Your task to perform on an android device: check out phone information Image 0: 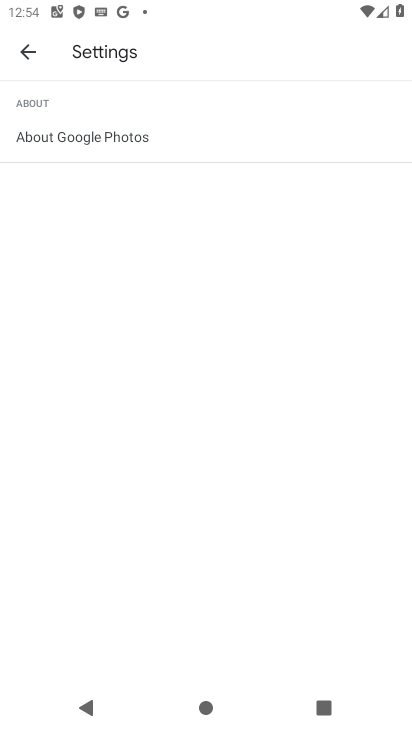
Step 0: press home button
Your task to perform on an android device: check out phone information Image 1: 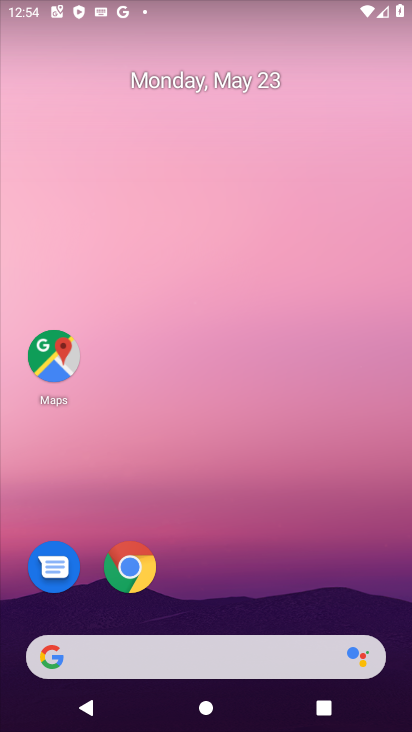
Step 1: drag from (220, 617) to (221, 162)
Your task to perform on an android device: check out phone information Image 2: 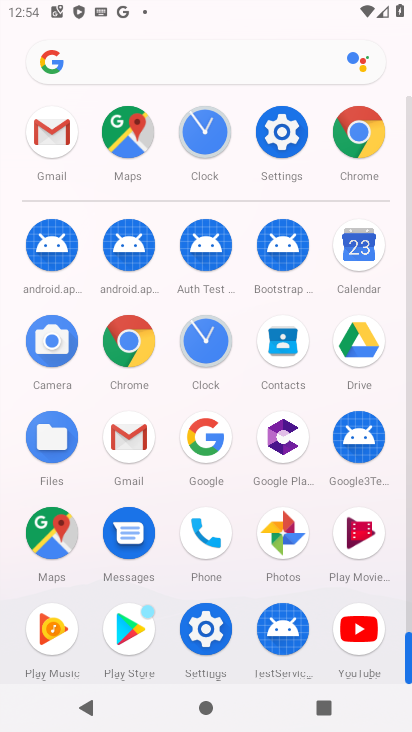
Step 2: click (289, 138)
Your task to perform on an android device: check out phone information Image 3: 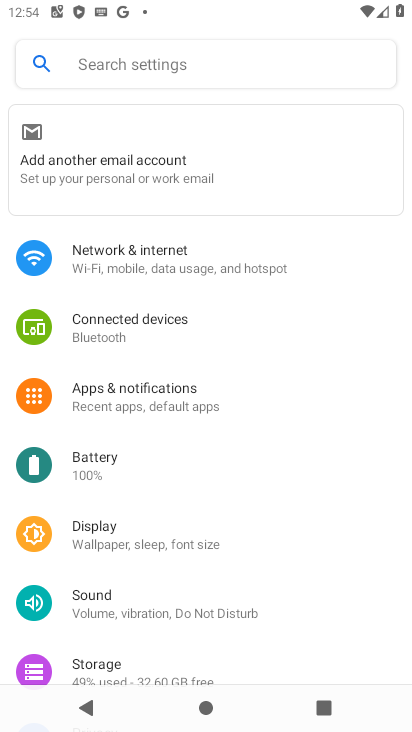
Step 3: drag from (245, 642) to (220, 30)
Your task to perform on an android device: check out phone information Image 4: 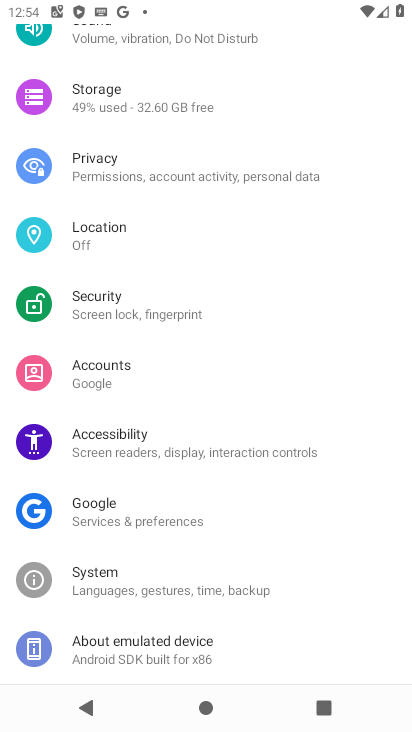
Step 4: click (251, 659)
Your task to perform on an android device: check out phone information Image 5: 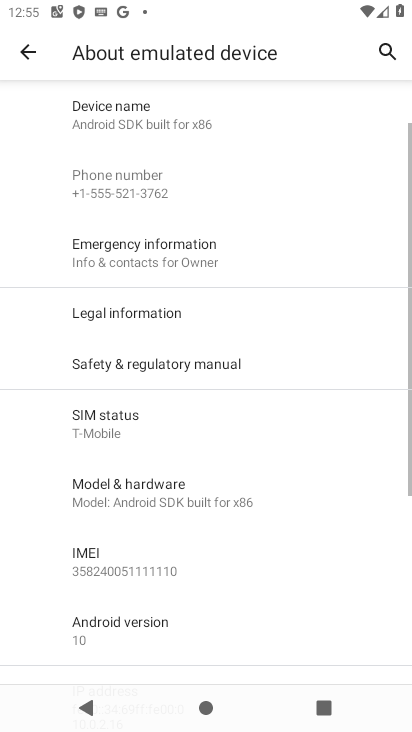
Step 5: task complete